Your task to perform on an android device: turn on the 12-hour format for clock Image 0: 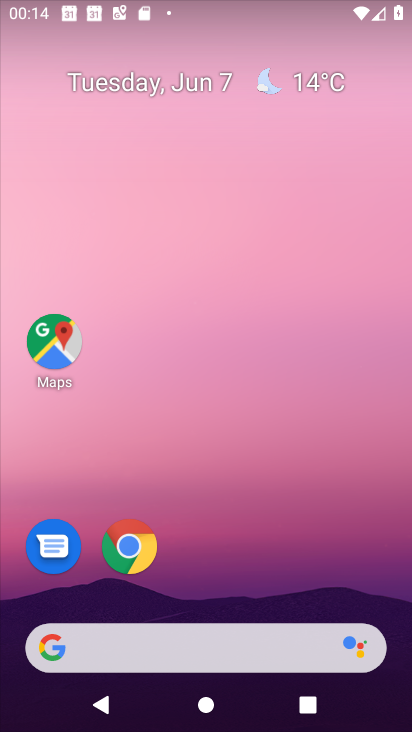
Step 0: drag from (168, 593) to (274, 168)
Your task to perform on an android device: turn on the 12-hour format for clock Image 1: 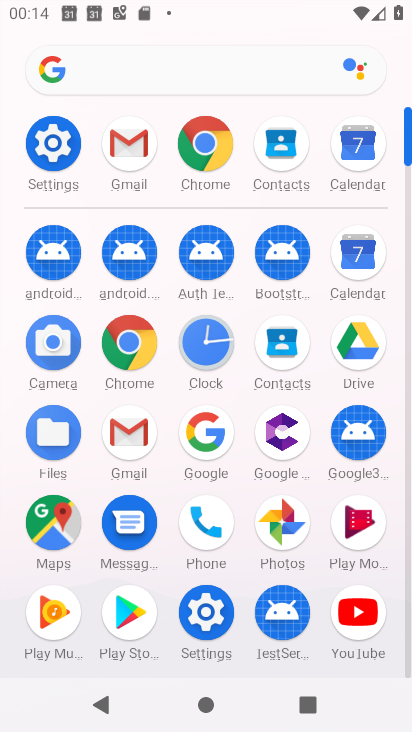
Step 1: click (208, 612)
Your task to perform on an android device: turn on the 12-hour format for clock Image 2: 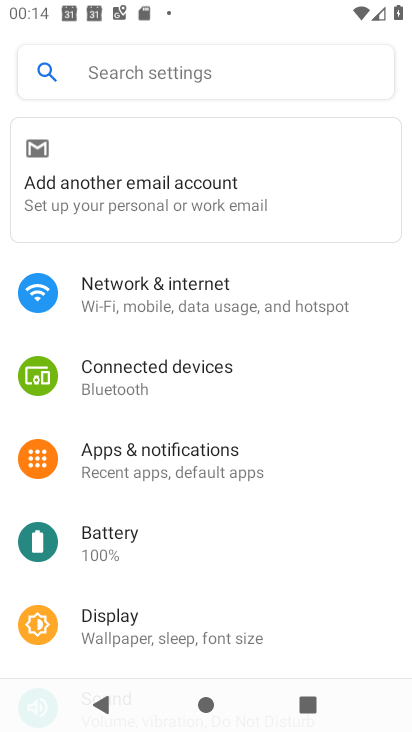
Step 2: drag from (201, 514) to (247, 319)
Your task to perform on an android device: turn on the 12-hour format for clock Image 3: 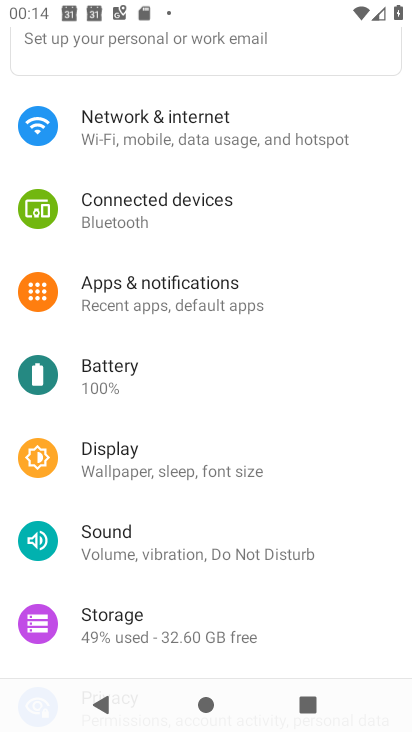
Step 3: drag from (180, 604) to (213, 267)
Your task to perform on an android device: turn on the 12-hour format for clock Image 4: 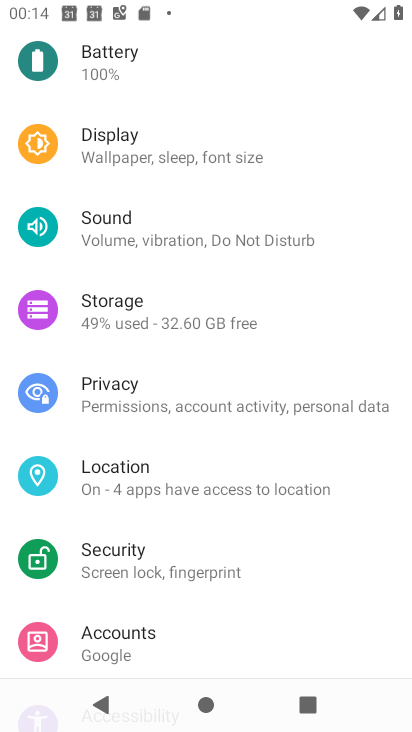
Step 4: drag from (137, 563) to (277, 20)
Your task to perform on an android device: turn on the 12-hour format for clock Image 5: 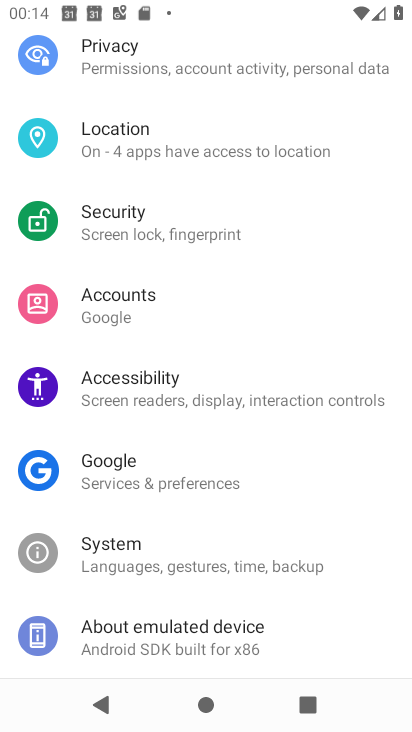
Step 5: click (201, 569)
Your task to perform on an android device: turn on the 12-hour format for clock Image 6: 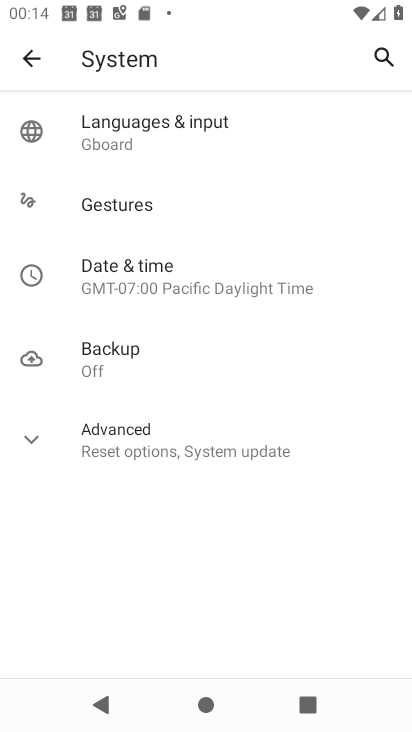
Step 6: click (142, 270)
Your task to perform on an android device: turn on the 12-hour format for clock Image 7: 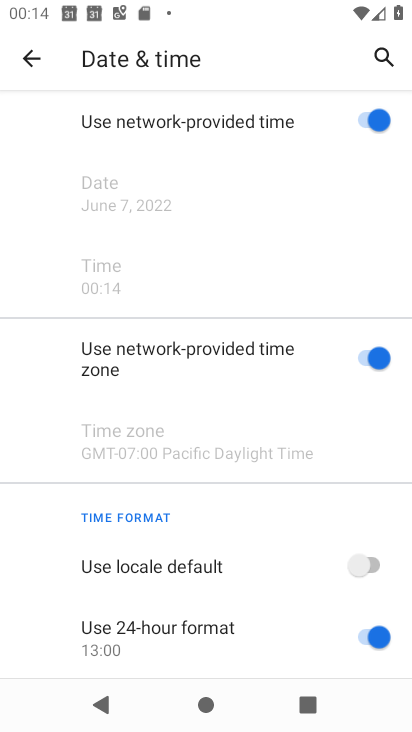
Step 7: click (371, 552)
Your task to perform on an android device: turn on the 12-hour format for clock Image 8: 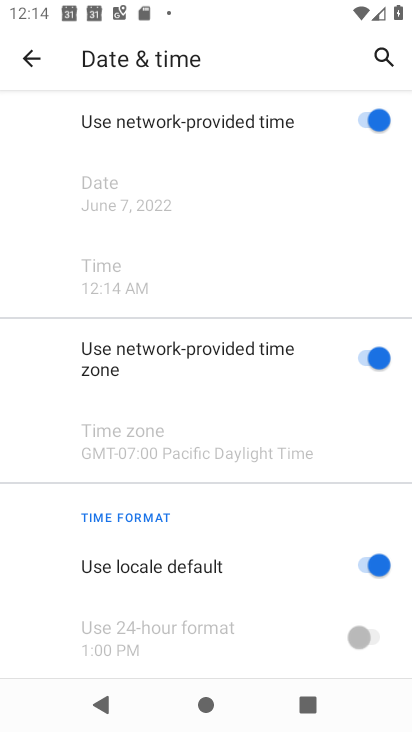
Step 8: task complete